Your task to perform on an android device: Do I have any events tomorrow? Image 0: 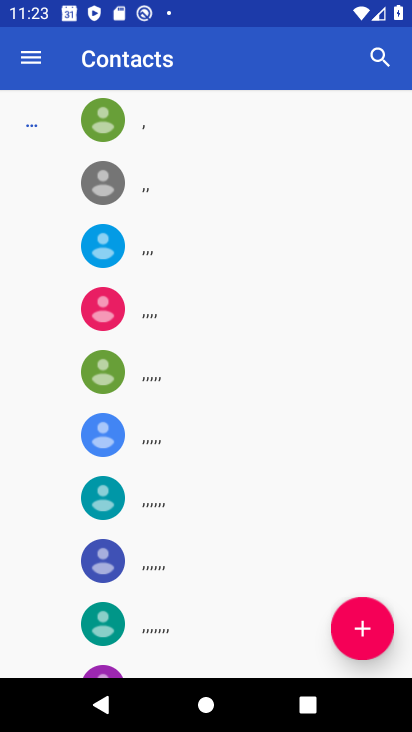
Step 0: press back button
Your task to perform on an android device: Do I have any events tomorrow? Image 1: 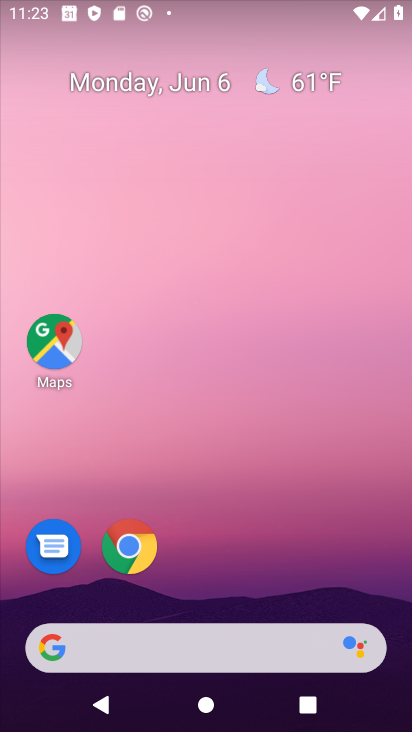
Step 1: drag from (207, 580) to (269, 103)
Your task to perform on an android device: Do I have any events tomorrow? Image 2: 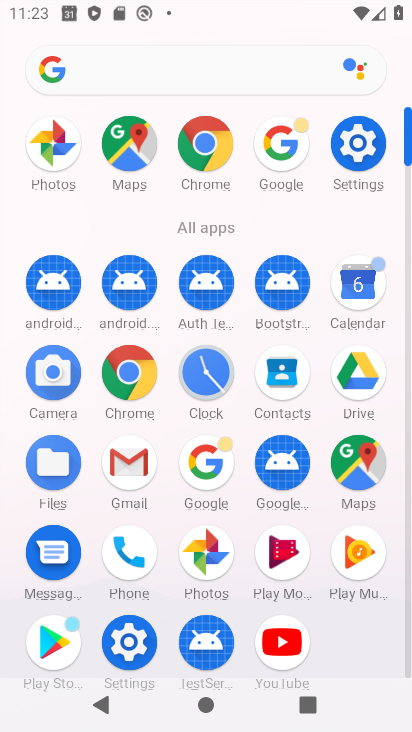
Step 2: click (366, 294)
Your task to perform on an android device: Do I have any events tomorrow? Image 3: 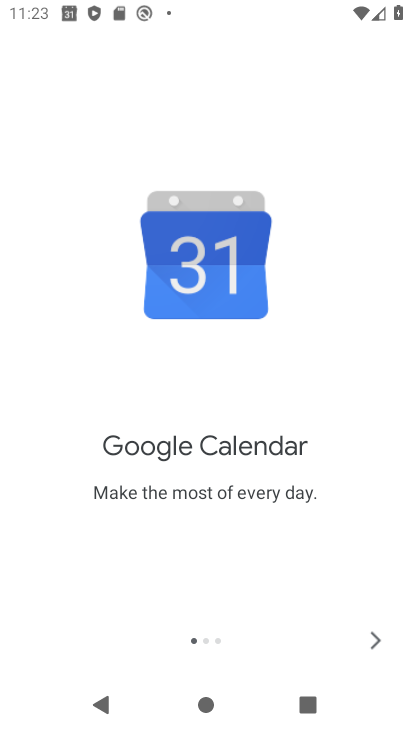
Step 3: click (376, 635)
Your task to perform on an android device: Do I have any events tomorrow? Image 4: 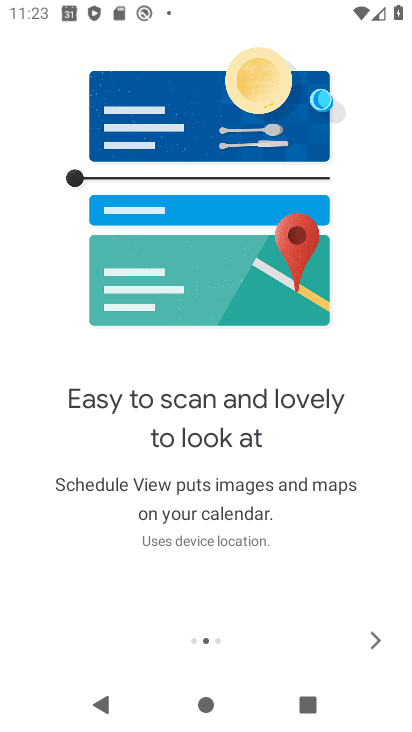
Step 4: click (374, 640)
Your task to perform on an android device: Do I have any events tomorrow? Image 5: 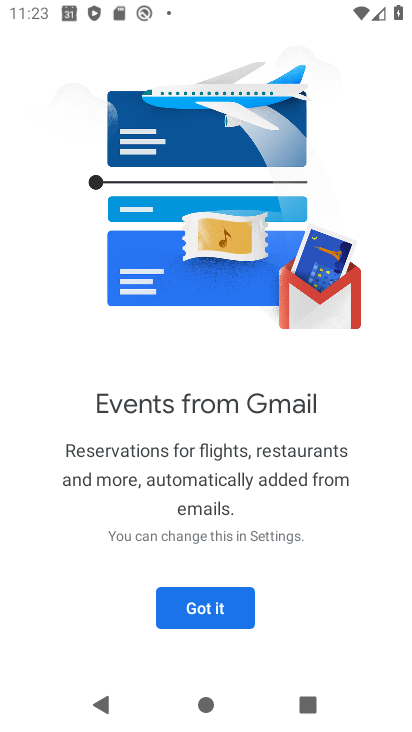
Step 5: click (225, 607)
Your task to perform on an android device: Do I have any events tomorrow? Image 6: 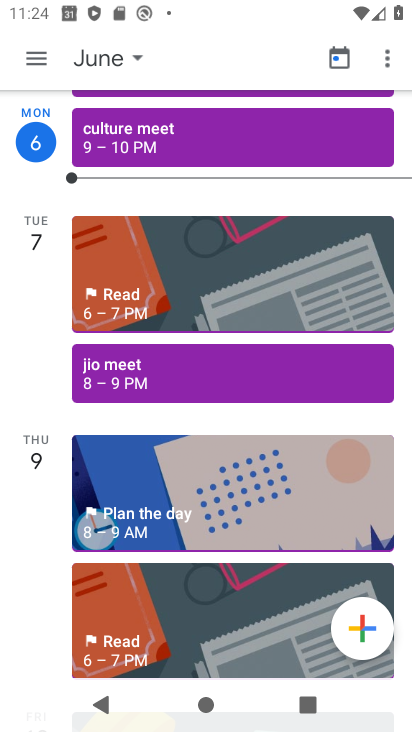
Step 6: click (144, 508)
Your task to perform on an android device: Do I have any events tomorrow? Image 7: 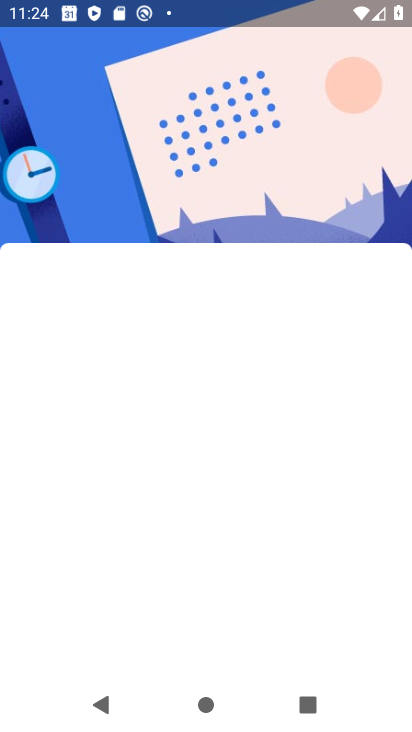
Step 7: task complete